Your task to perform on an android device: See recent photos Image 0: 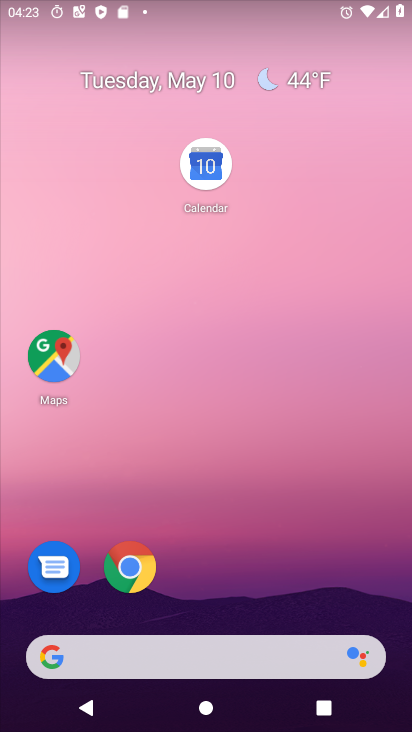
Step 0: drag from (236, 585) to (220, 45)
Your task to perform on an android device: See recent photos Image 1: 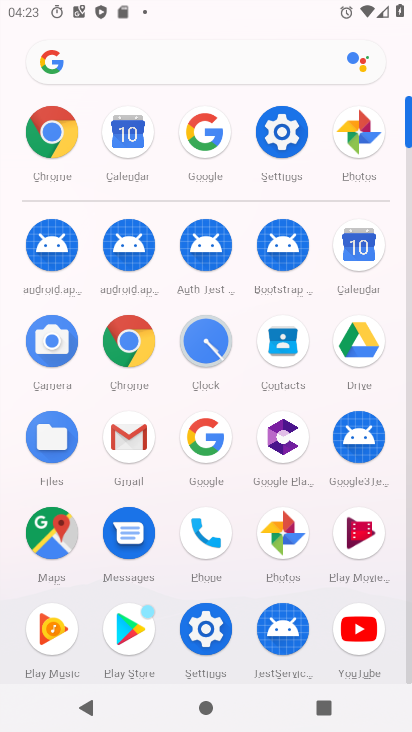
Step 1: click (342, 138)
Your task to perform on an android device: See recent photos Image 2: 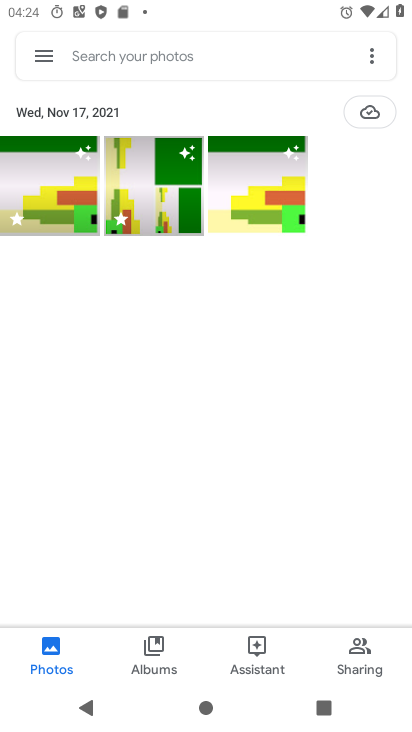
Step 2: task complete